Your task to perform on an android device: Search for pizza restaurants on Maps Image 0: 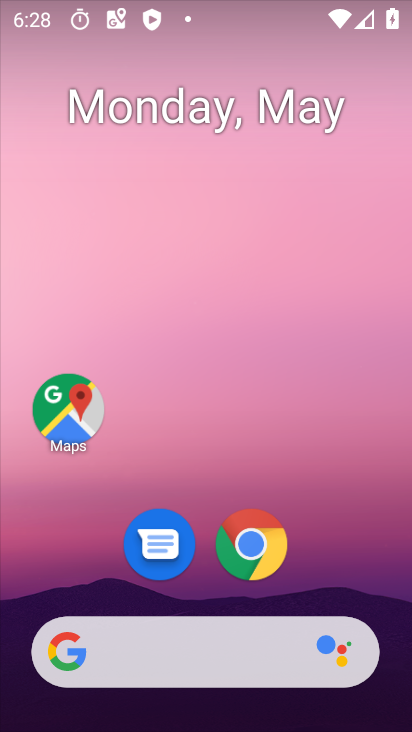
Step 0: click (79, 396)
Your task to perform on an android device: Search for pizza restaurants on Maps Image 1: 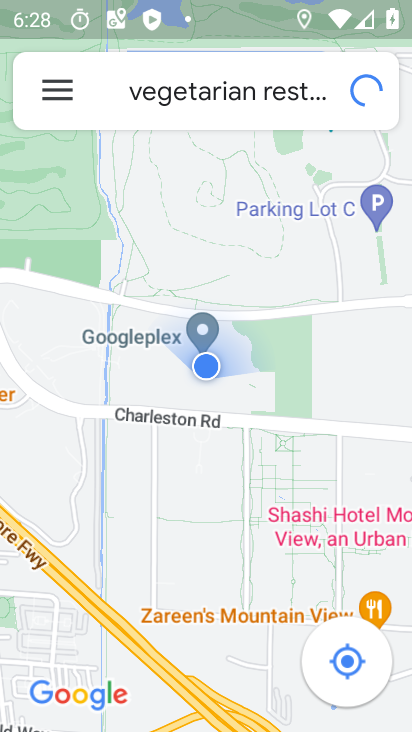
Step 1: click (256, 85)
Your task to perform on an android device: Search for pizza restaurants on Maps Image 2: 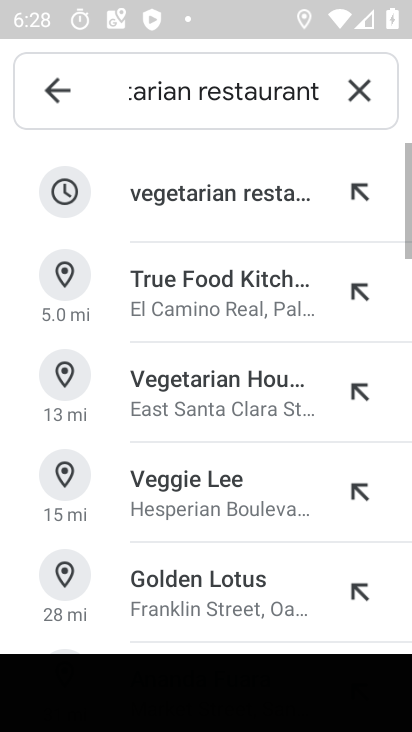
Step 2: click (344, 93)
Your task to perform on an android device: Search for pizza restaurants on Maps Image 3: 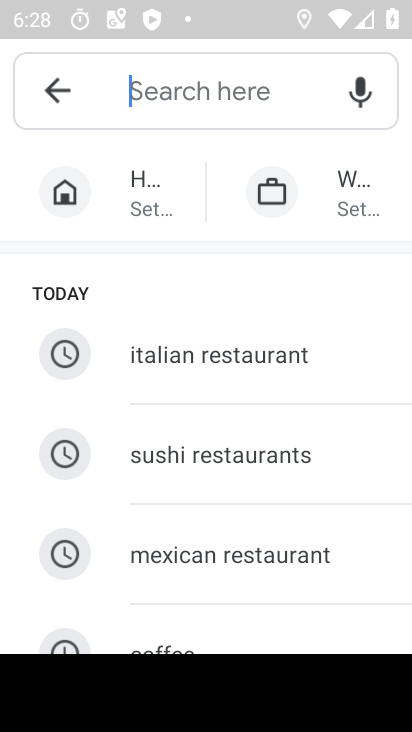
Step 3: drag from (242, 561) to (226, 198)
Your task to perform on an android device: Search for pizza restaurants on Maps Image 4: 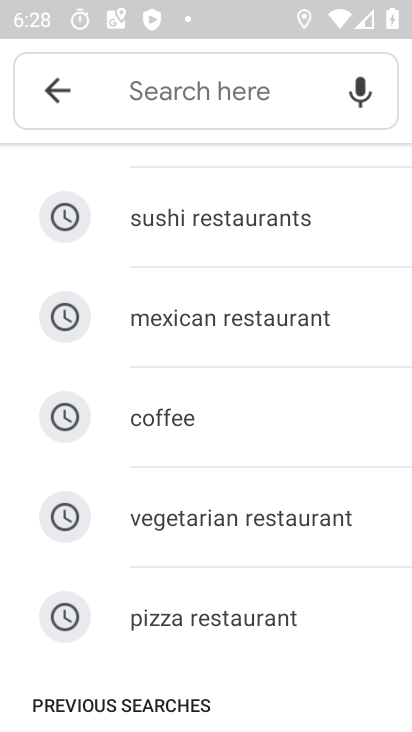
Step 4: click (233, 613)
Your task to perform on an android device: Search for pizza restaurants on Maps Image 5: 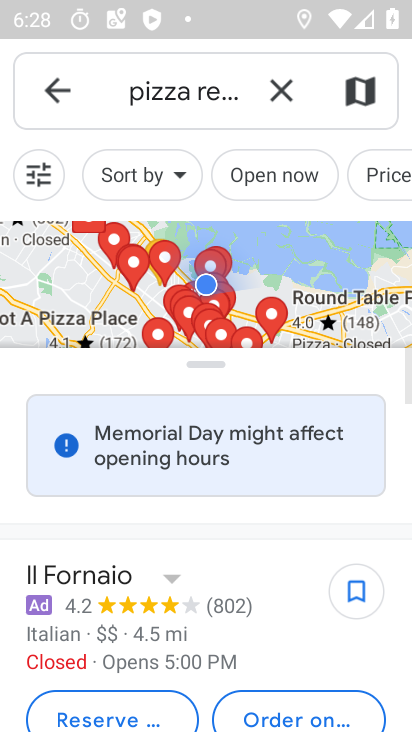
Step 5: task complete